Your task to perform on an android device: show emergency info Image 0: 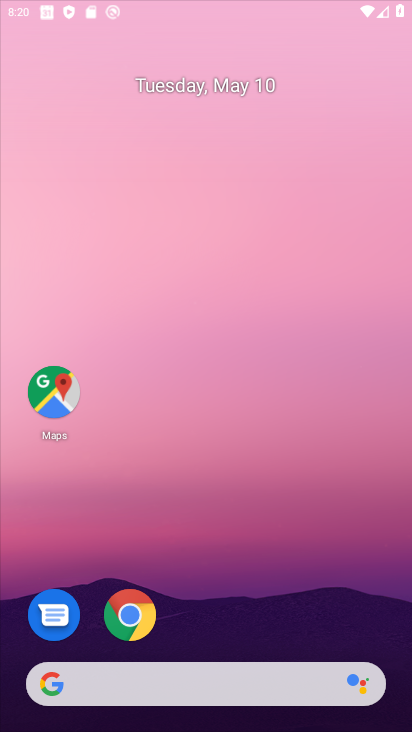
Step 0: drag from (192, 624) to (224, 318)
Your task to perform on an android device: show emergency info Image 1: 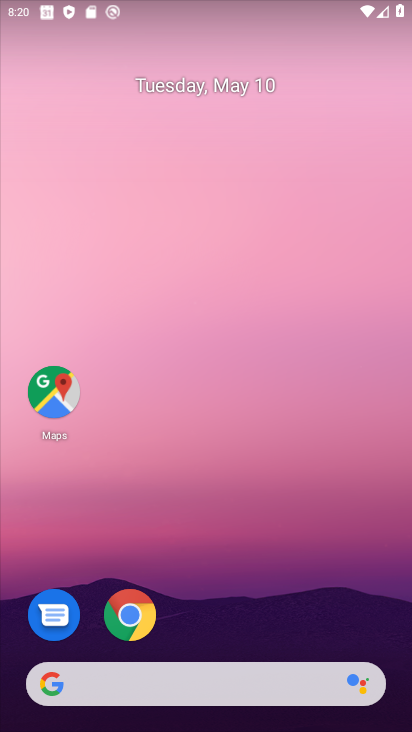
Step 1: drag from (217, 597) to (301, 84)
Your task to perform on an android device: show emergency info Image 2: 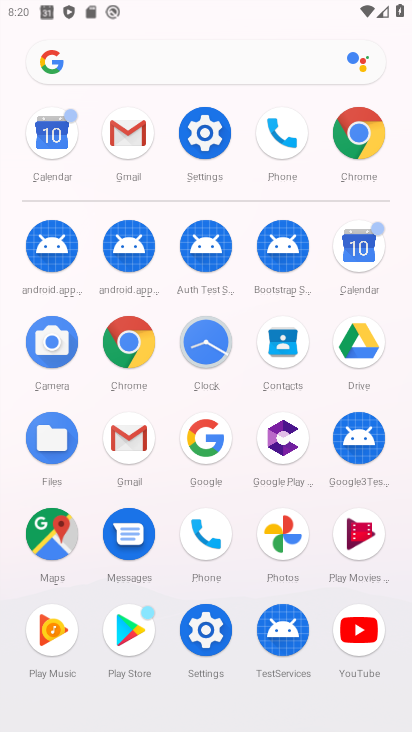
Step 2: click (197, 131)
Your task to perform on an android device: show emergency info Image 3: 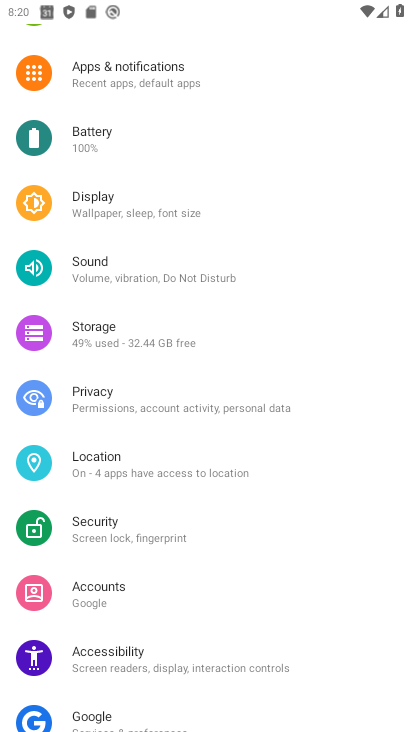
Step 3: drag from (190, 633) to (184, 307)
Your task to perform on an android device: show emergency info Image 4: 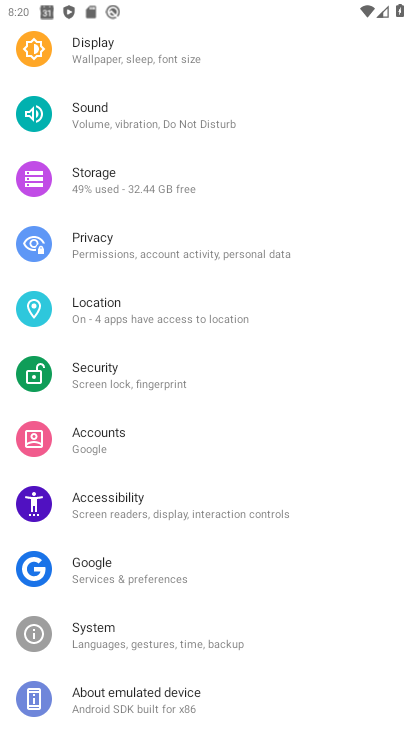
Step 4: drag from (193, 640) to (205, 245)
Your task to perform on an android device: show emergency info Image 5: 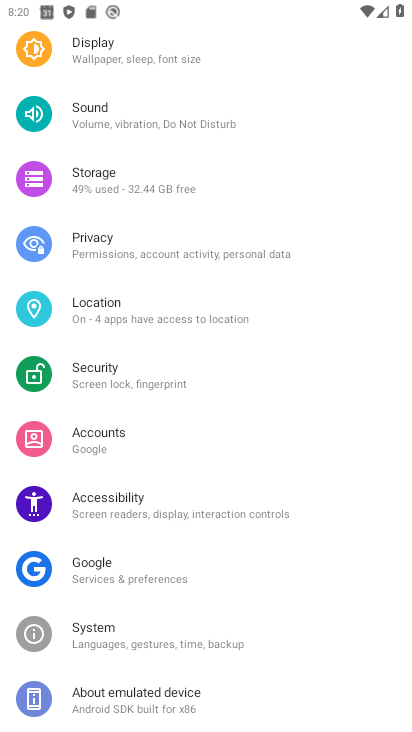
Step 5: click (183, 688)
Your task to perform on an android device: show emergency info Image 6: 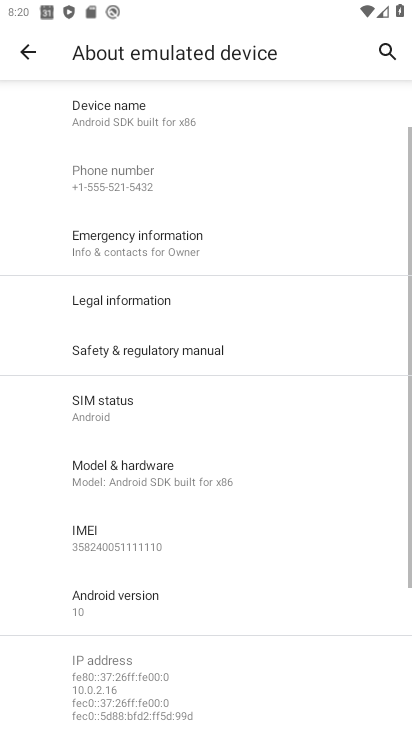
Step 6: click (182, 234)
Your task to perform on an android device: show emergency info Image 7: 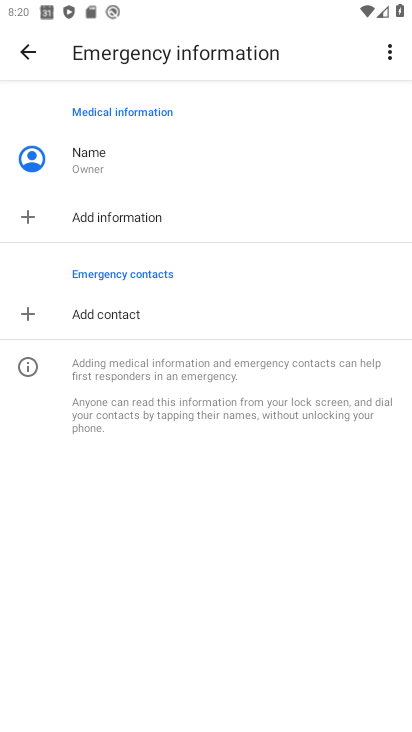
Step 7: task complete